Your task to perform on an android device: turn vacation reply on in the gmail app Image 0: 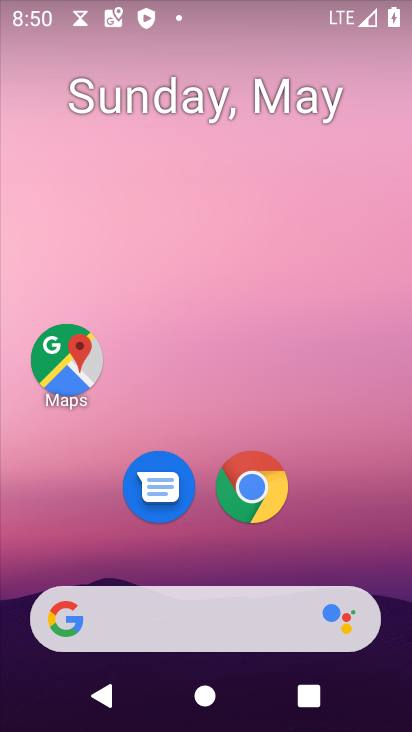
Step 0: drag from (367, 542) to (371, 169)
Your task to perform on an android device: turn vacation reply on in the gmail app Image 1: 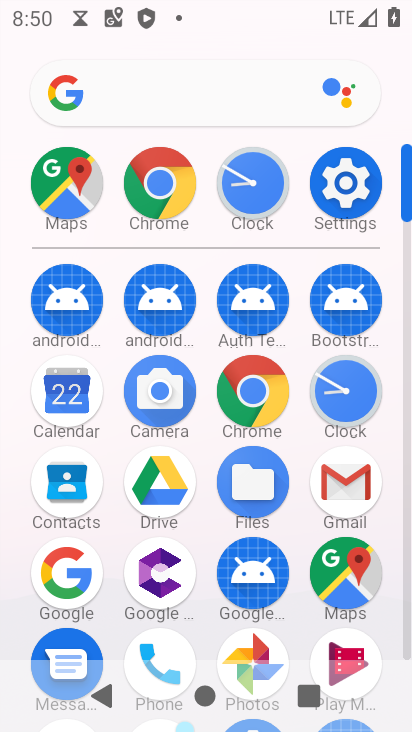
Step 1: click (355, 484)
Your task to perform on an android device: turn vacation reply on in the gmail app Image 2: 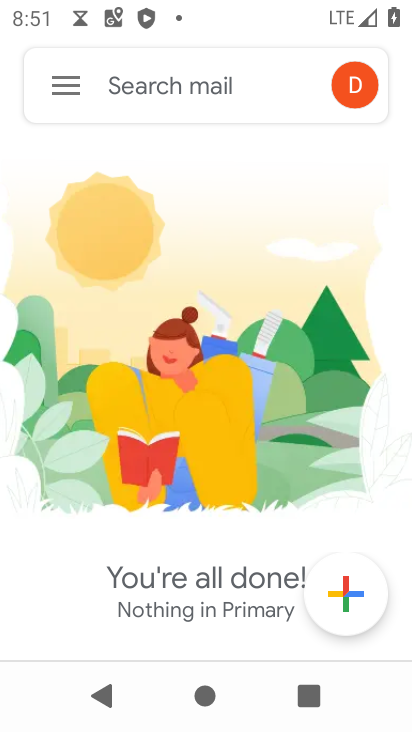
Step 2: click (49, 78)
Your task to perform on an android device: turn vacation reply on in the gmail app Image 3: 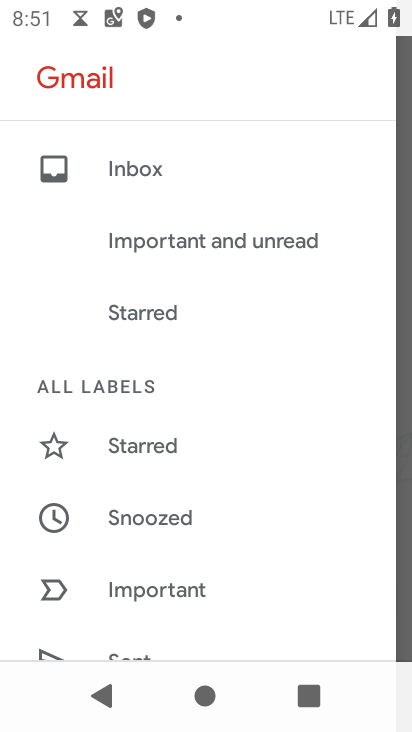
Step 3: drag from (180, 595) to (283, 119)
Your task to perform on an android device: turn vacation reply on in the gmail app Image 4: 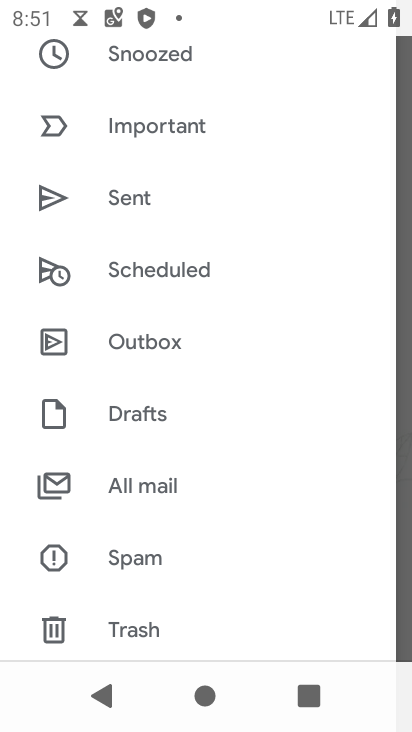
Step 4: drag from (281, 550) to (351, 158)
Your task to perform on an android device: turn vacation reply on in the gmail app Image 5: 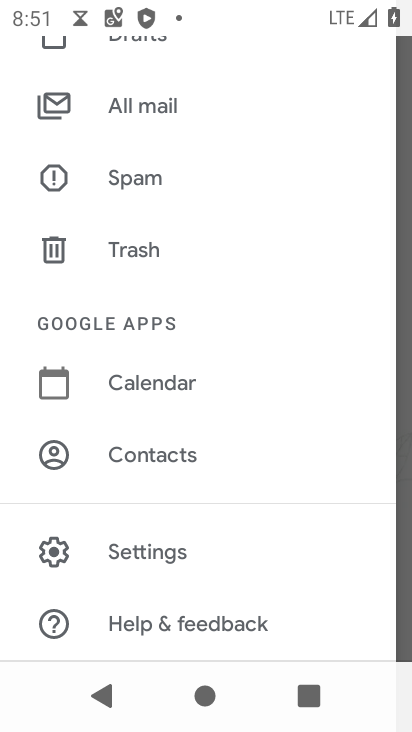
Step 5: click (163, 552)
Your task to perform on an android device: turn vacation reply on in the gmail app Image 6: 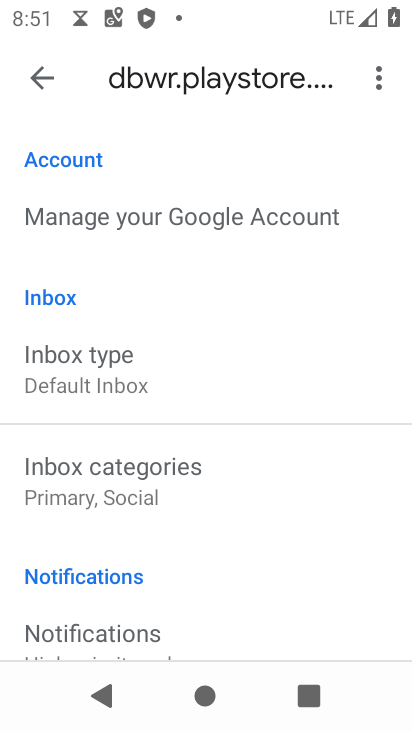
Step 6: drag from (196, 581) to (234, 161)
Your task to perform on an android device: turn vacation reply on in the gmail app Image 7: 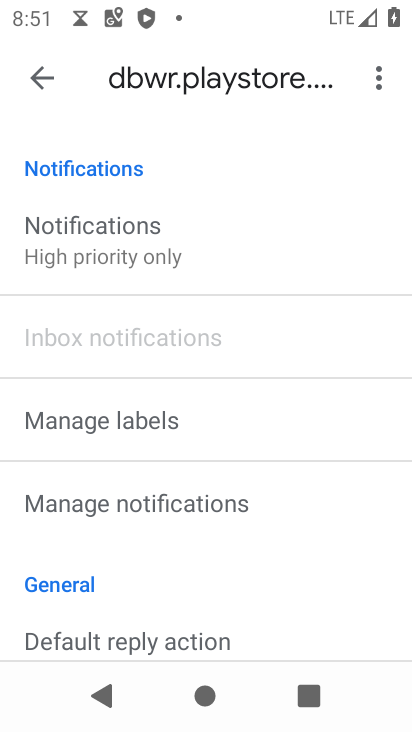
Step 7: drag from (189, 570) to (256, 197)
Your task to perform on an android device: turn vacation reply on in the gmail app Image 8: 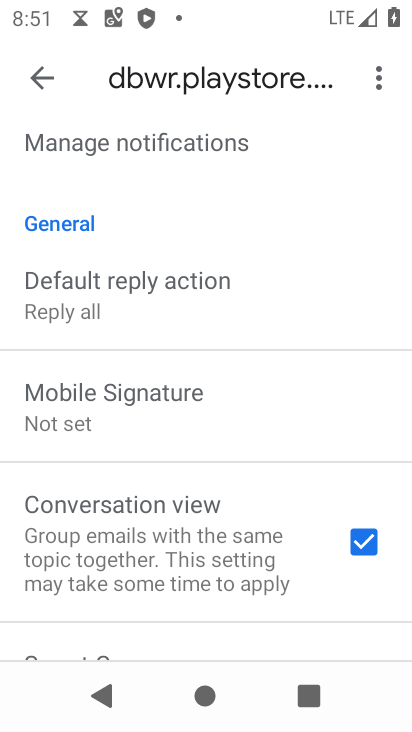
Step 8: drag from (233, 557) to (252, 224)
Your task to perform on an android device: turn vacation reply on in the gmail app Image 9: 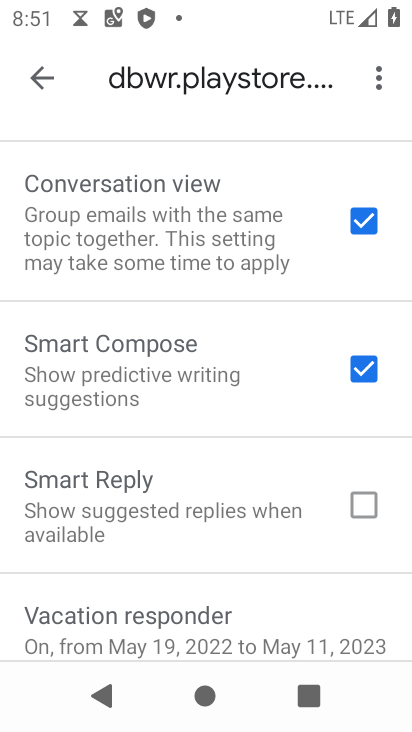
Step 9: drag from (209, 615) to (230, 262)
Your task to perform on an android device: turn vacation reply on in the gmail app Image 10: 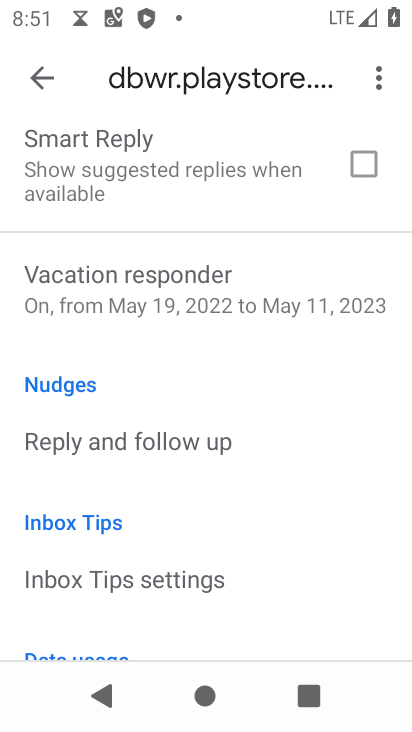
Step 10: click (154, 295)
Your task to perform on an android device: turn vacation reply on in the gmail app Image 11: 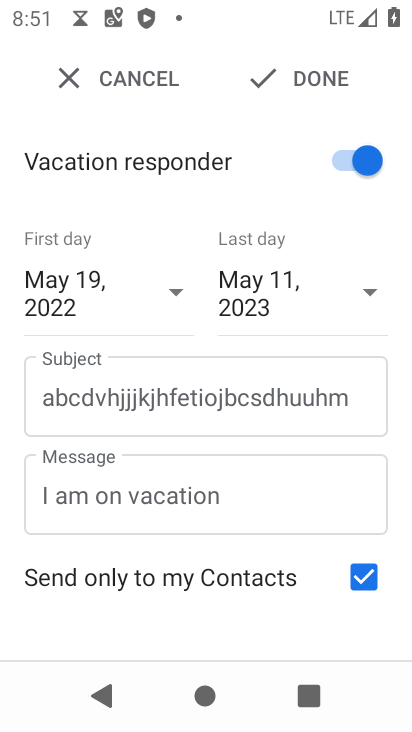
Step 11: task complete